Your task to perform on an android device: uninstall "Grab" Image 0: 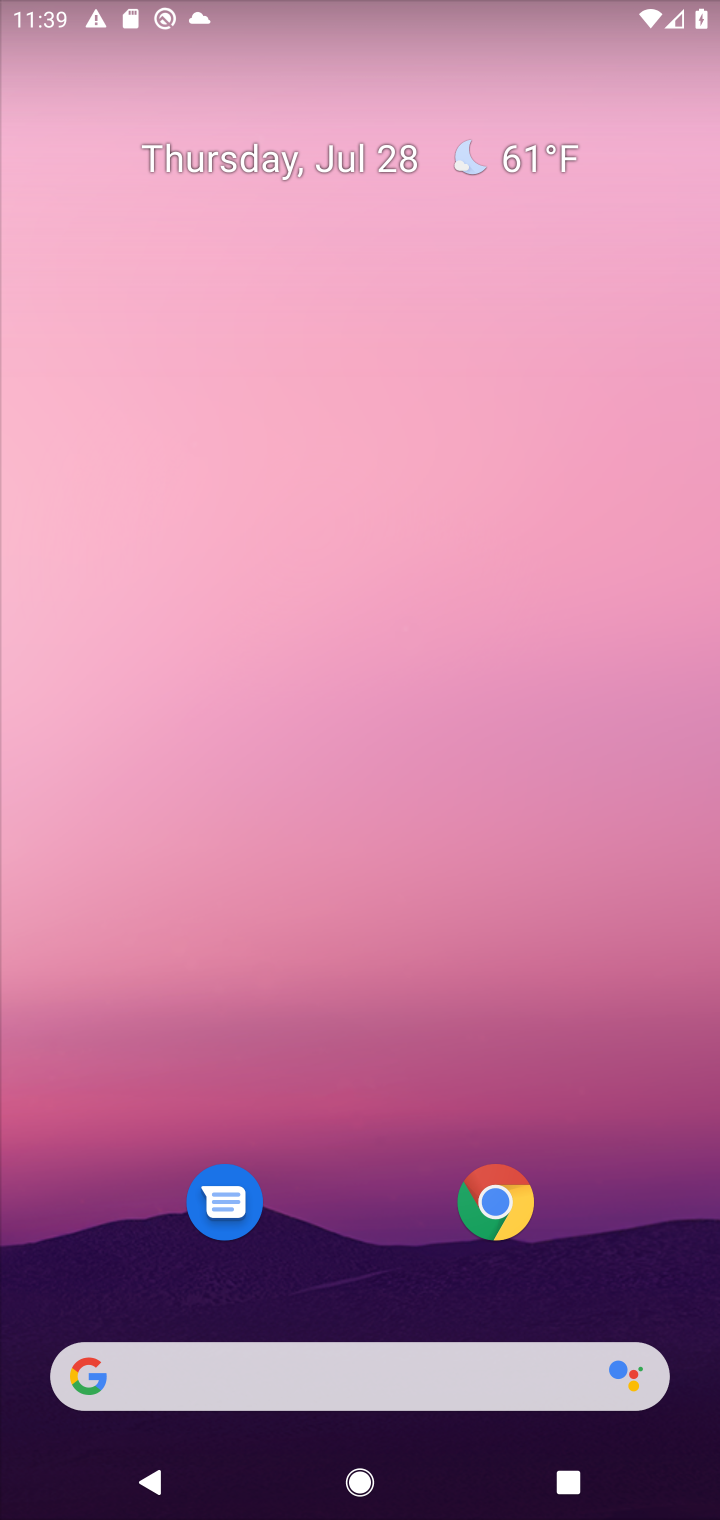
Step 0: drag from (407, 1343) to (321, 567)
Your task to perform on an android device: uninstall "Grab" Image 1: 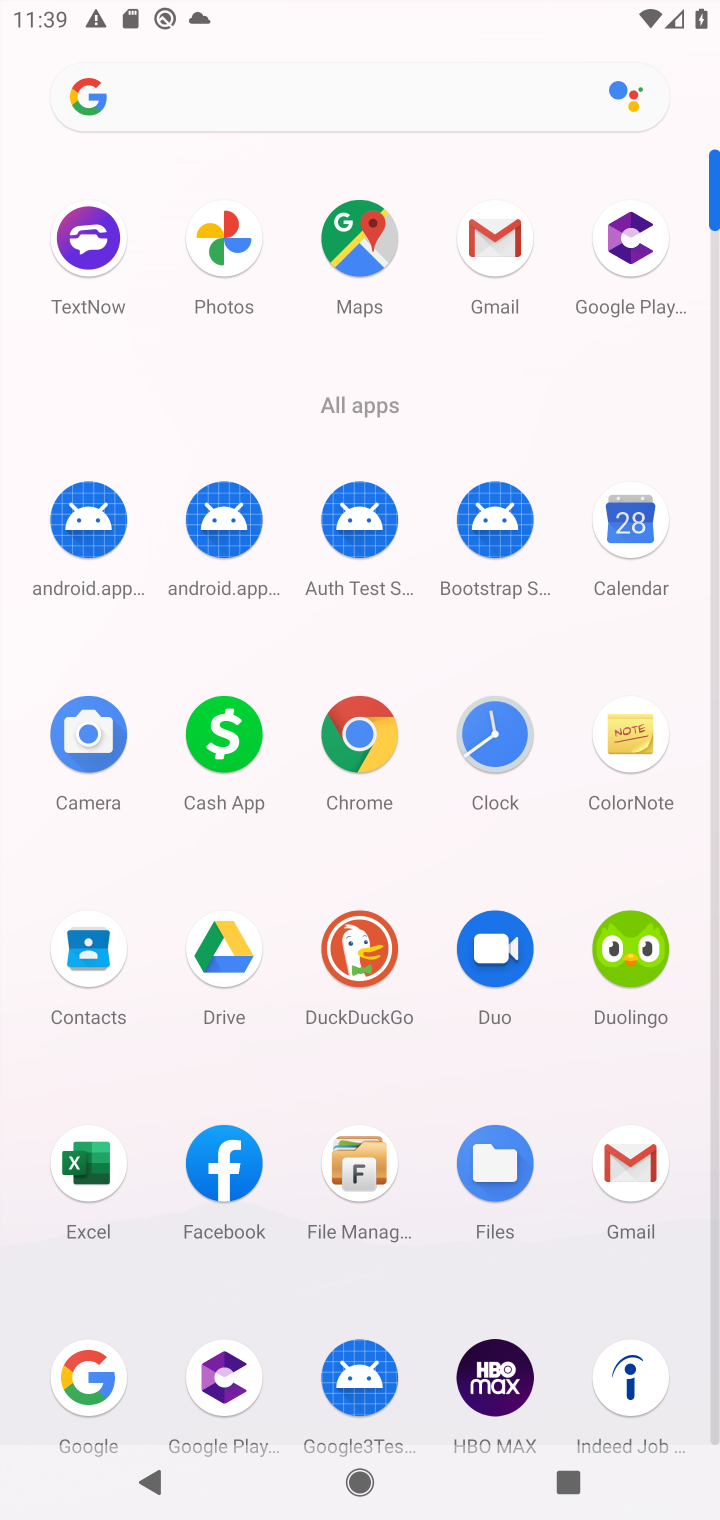
Step 1: task complete